Your task to perform on an android device: set the stopwatch Image 0: 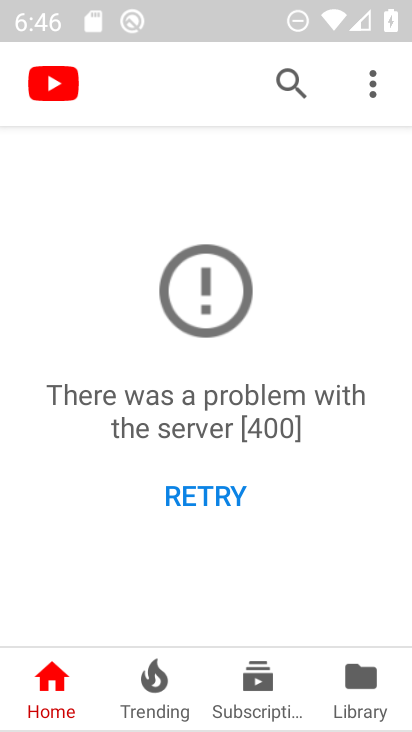
Step 0: press home button
Your task to perform on an android device: set the stopwatch Image 1: 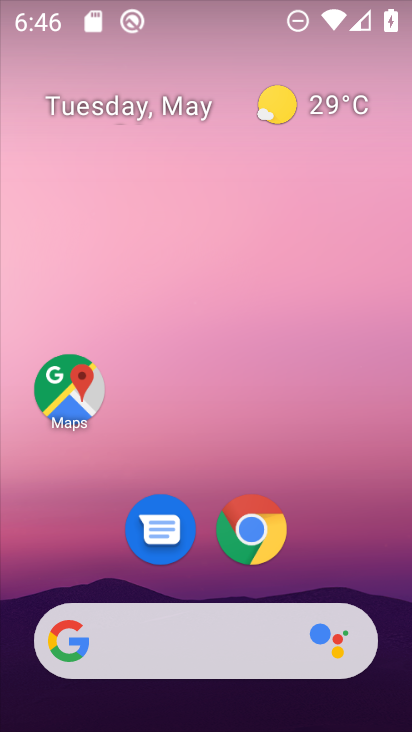
Step 1: drag from (387, 558) to (319, 241)
Your task to perform on an android device: set the stopwatch Image 2: 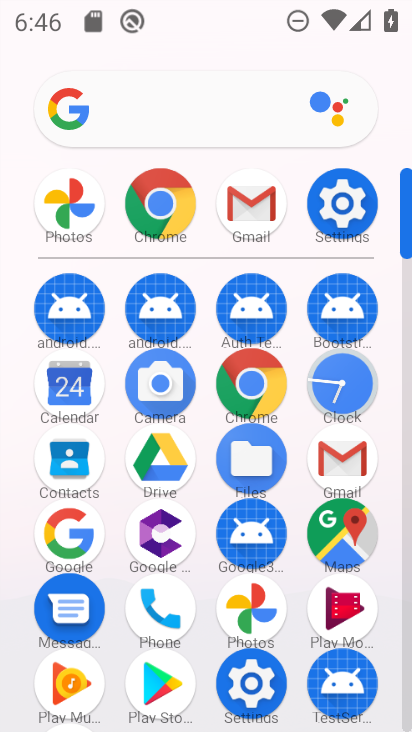
Step 2: click (341, 374)
Your task to perform on an android device: set the stopwatch Image 3: 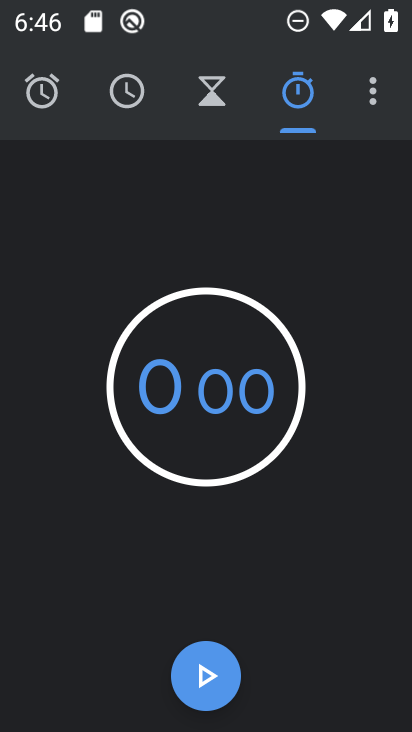
Step 3: task complete